Your task to perform on an android device: see creations saved in the google photos Image 0: 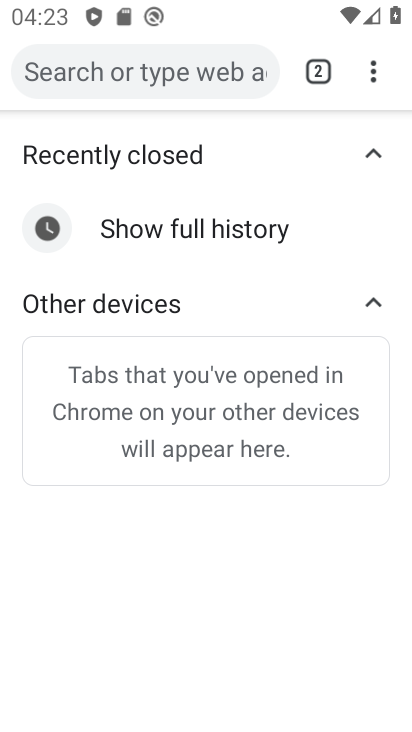
Step 0: press home button
Your task to perform on an android device: see creations saved in the google photos Image 1: 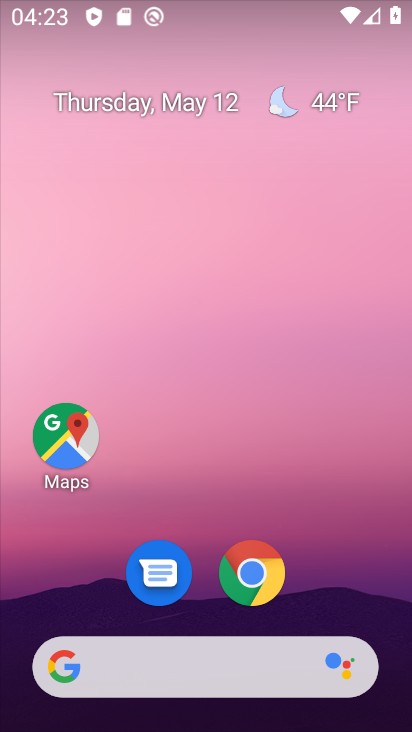
Step 1: drag from (389, 635) to (309, 210)
Your task to perform on an android device: see creations saved in the google photos Image 2: 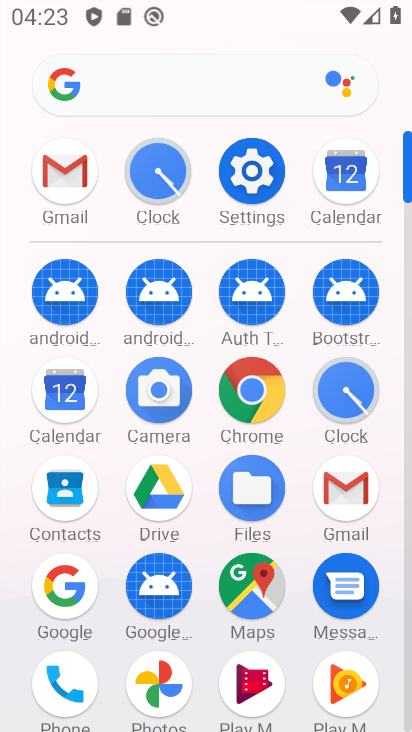
Step 2: click (409, 710)
Your task to perform on an android device: see creations saved in the google photos Image 3: 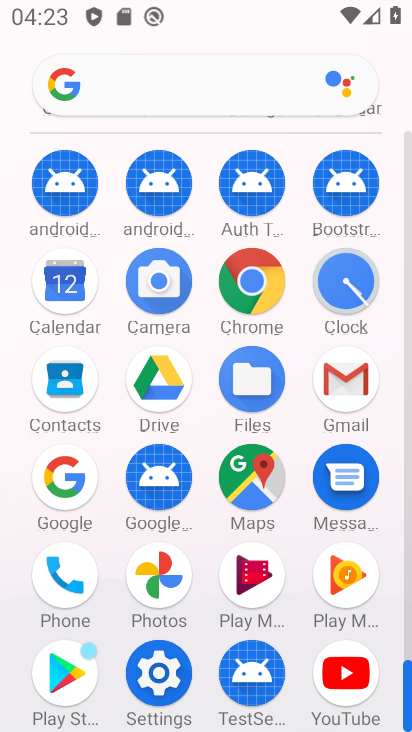
Step 3: click (155, 573)
Your task to perform on an android device: see creations saved in the google photos Image 4: 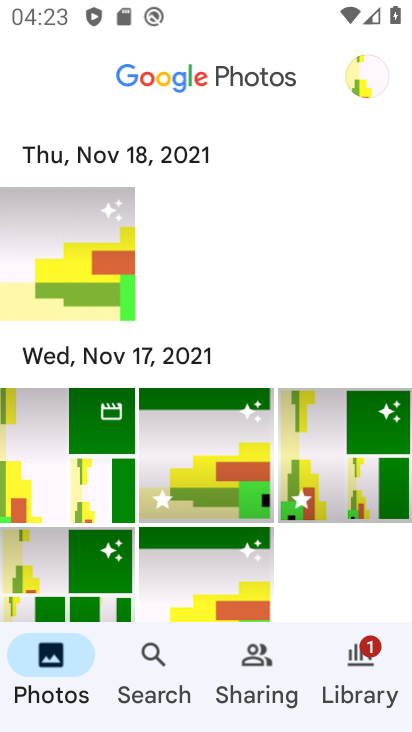
Step 4: task complete